Your task to perform on an android device: Search for pizza restaurants on Maps Image 0: 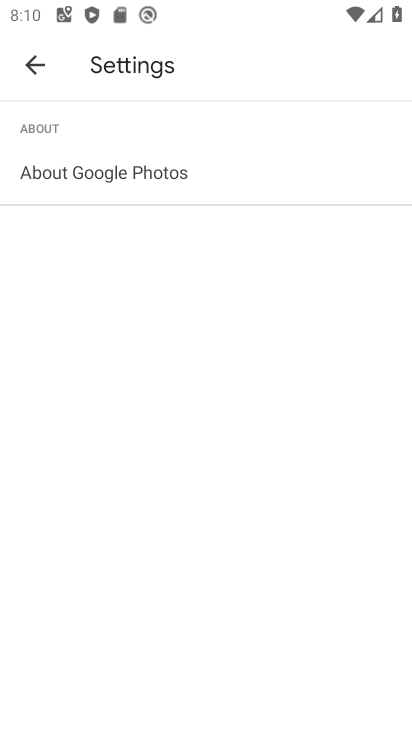
Step 0: press home button
Your task to perform on an android device: Search for pizza restaurants on Maps Image 1: 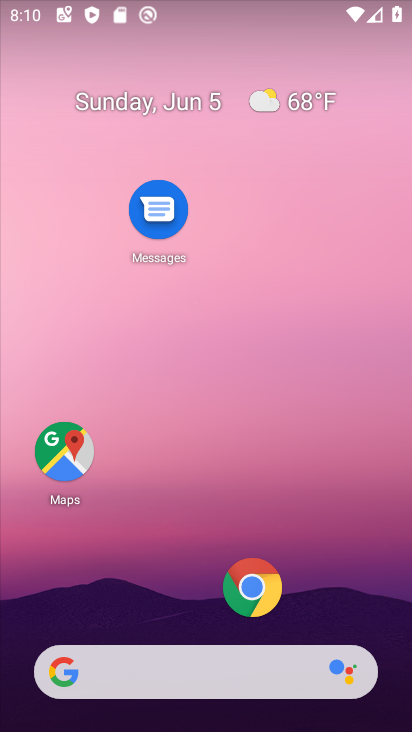
Step 1: click (65, 446)
Your task to perform on an android device: Search for pizza restaurants on Maps Image 2: 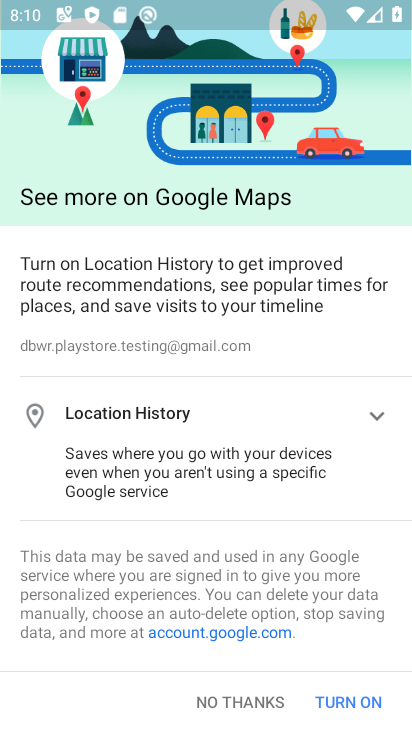
Step 2: click (350, 702)
Your task to perform on an android device: Search for pizza restaurants on Maps Image 3: 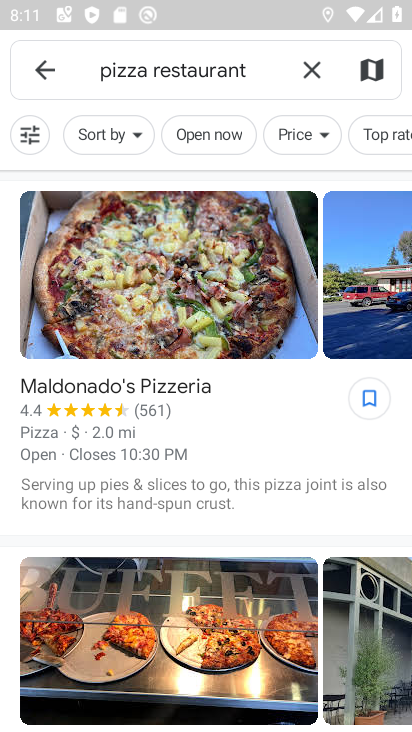
Step 3: task complete